Your task to perform on an android device: Open Google Chrome and open the bookmarks view Image 0: 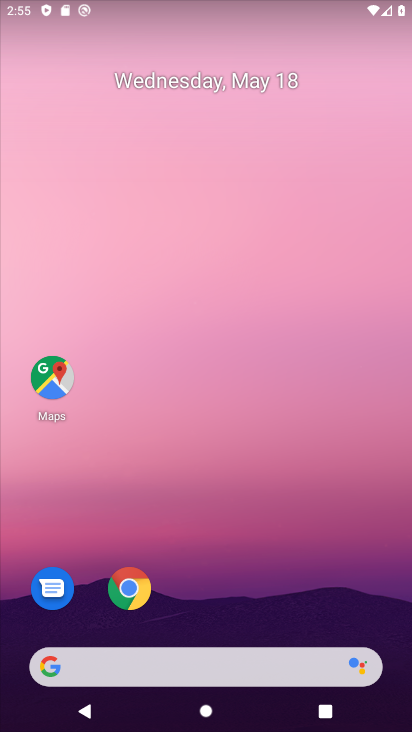
Step 0: click (118, 587)
Your task to perform on an android device: Open Google Chrome and open the bookmarks view Image 1: 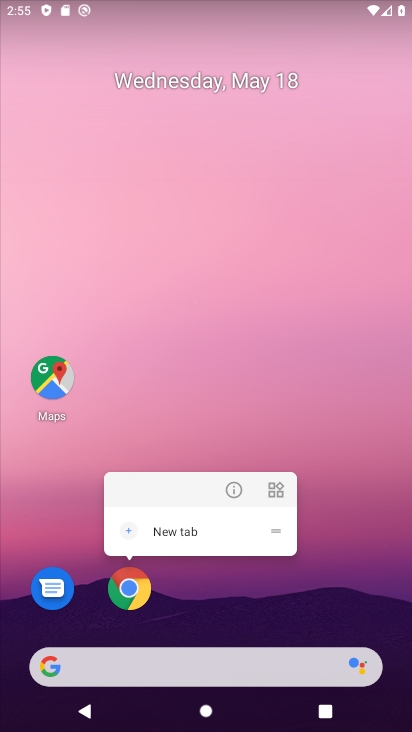
Step 1: click (130, 532)
Your task to perform on an android device: Open Google Chrome and open the bookmarks view Image 2: 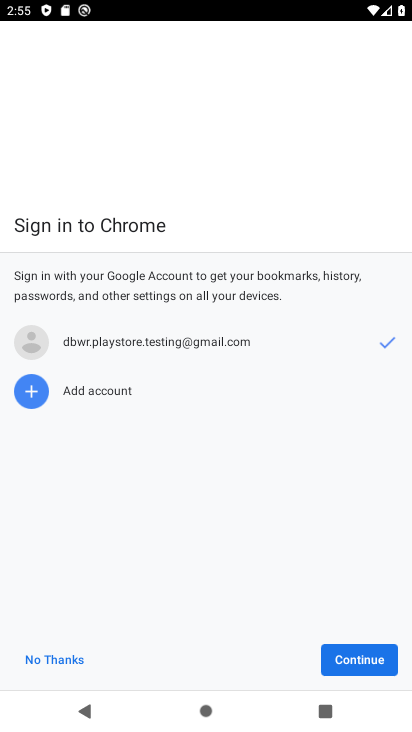
Step 2: click (349, 646)
Your task to perform on an android device: Open Google Chrome and open the bookmarks view Image 3: 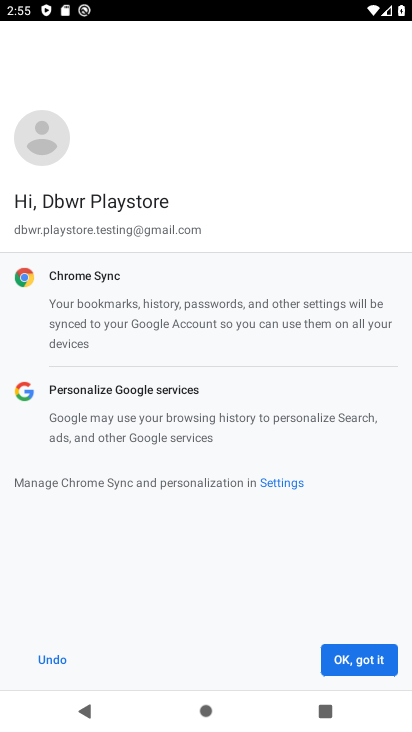
Step 3: click (349, 646)
Your task to perform on an android device: Open Google Chrome and open the bookmarks view Image 4: 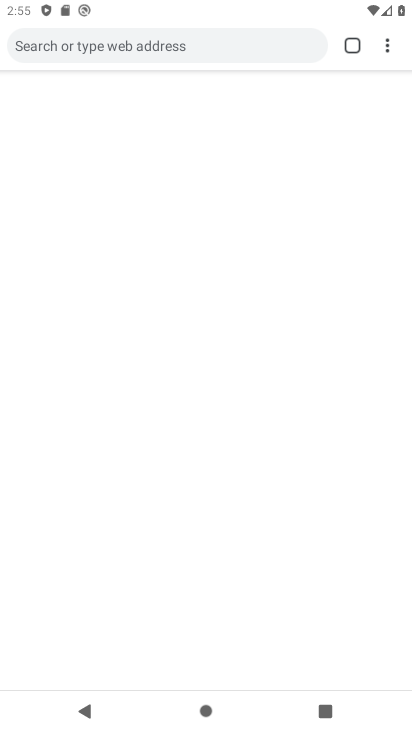
Step 4: click (349, 646)
Your task to perform on an android device: Open Google Chrome and open the bookmarks view Image 5: 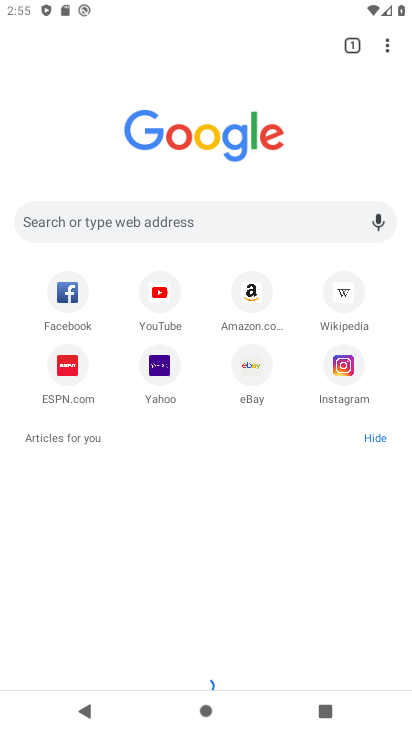
Step 5: drag from (391, 38) to (272, 367)
Your task to perform on an android device: Open Google Chrome and open the bookmarks view Image 6: 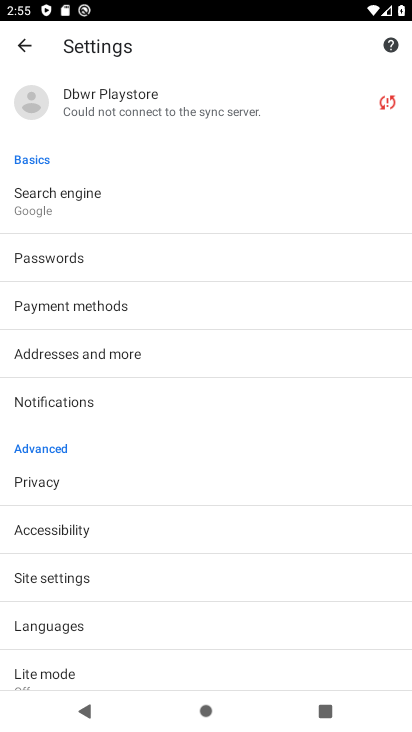
Step 6: drag from (159, 540) to (110, 362)
Your task to perform on an android device: Open Google Chrome and open the bookmarks view Image 7: 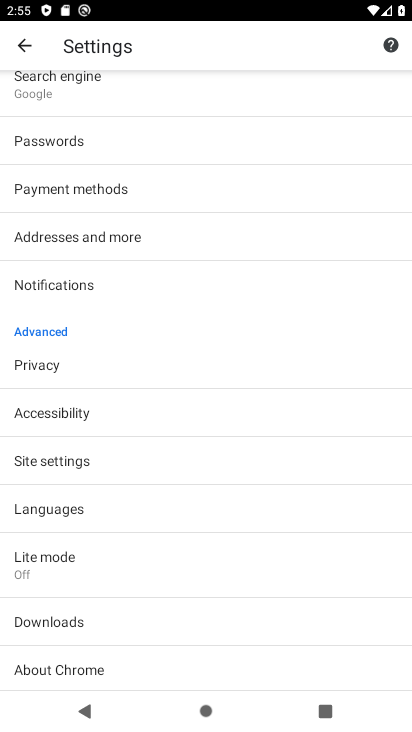
Step 7: click (30, 41)
Your task to perform on an android device: Open Google Chrome and open the bookmarks view Image 8: 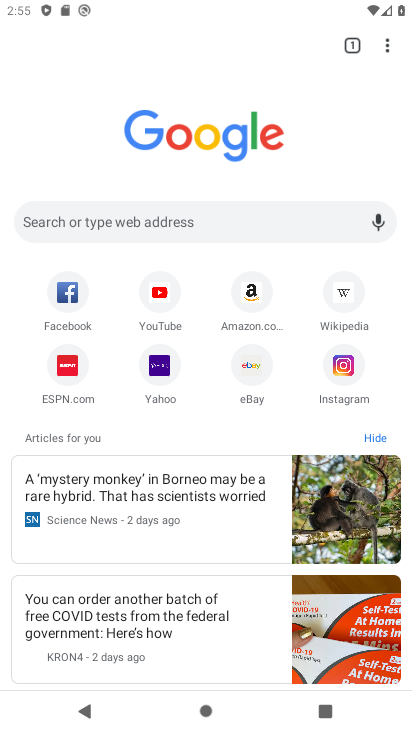
Step 8: task complete